Your task to perform on an android device: turn on location history Image 0: 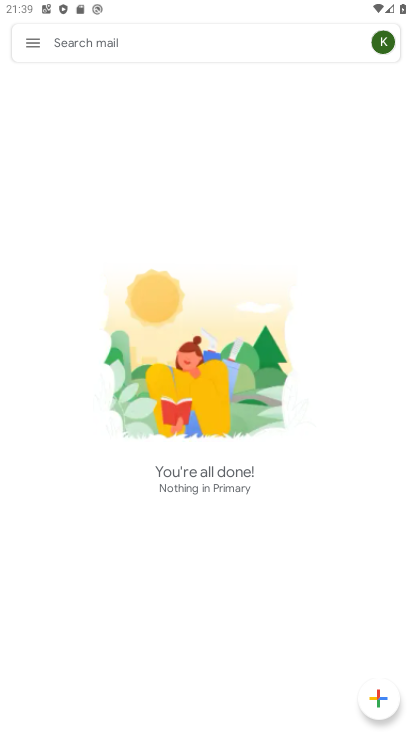
Step 0: press home button
Your task to perform on an android device: turn on location history Image 1: 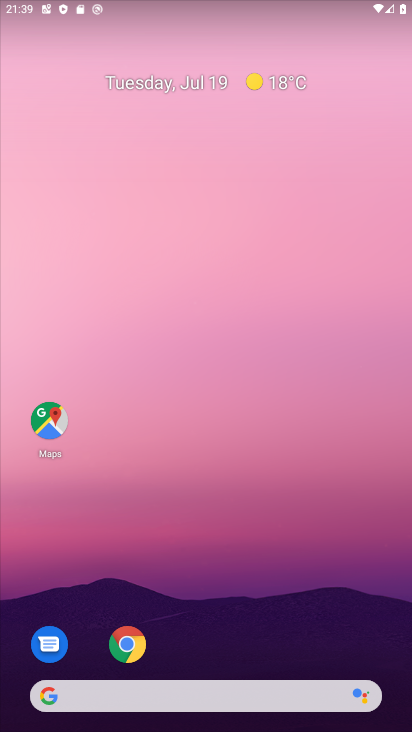
Step 1: drag from (220, 726) to (206, 253)
Your task to perform on an android device: turn on location history Image 2: 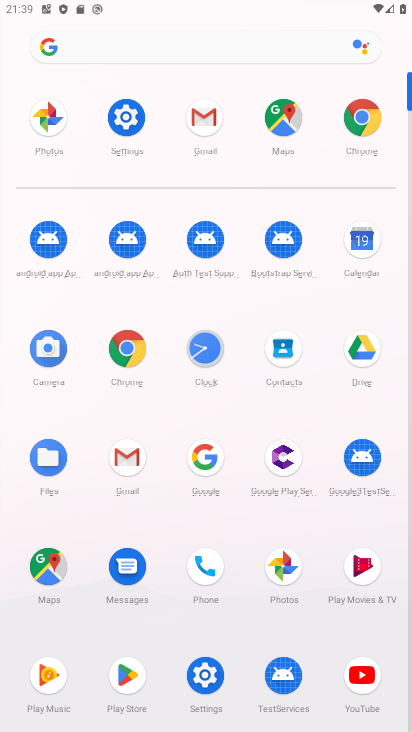
Step 2: click (130, 110)
Your task to perform on an android device: turn on location history Image 3: 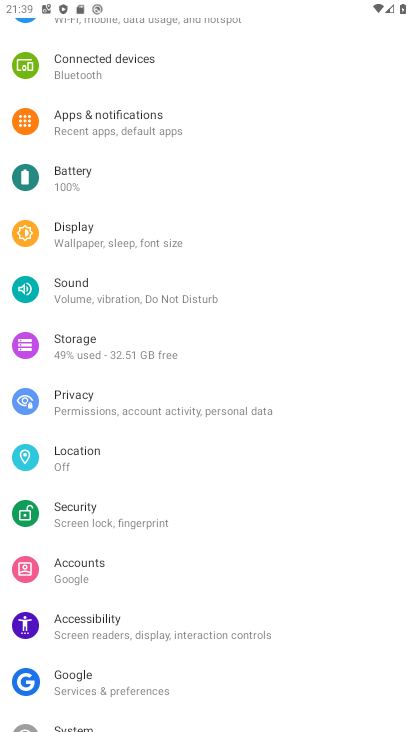
Step 3: click (67, 462)
Your task to perform on an android device: turn on location history Image 4: 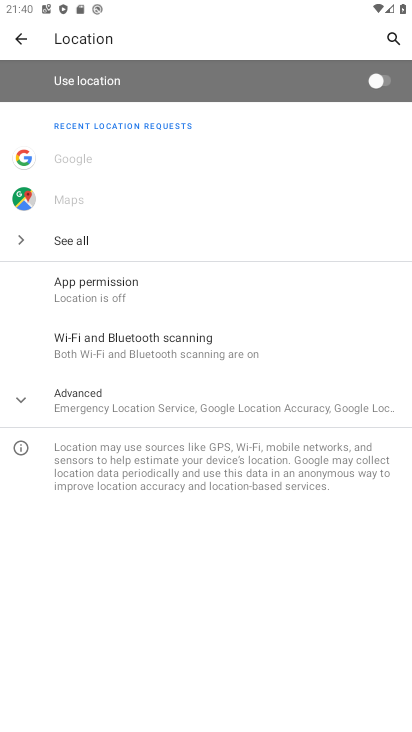
Step 4: click (96, 400)
Your task to perform on an android device: turn on location history Image 5: 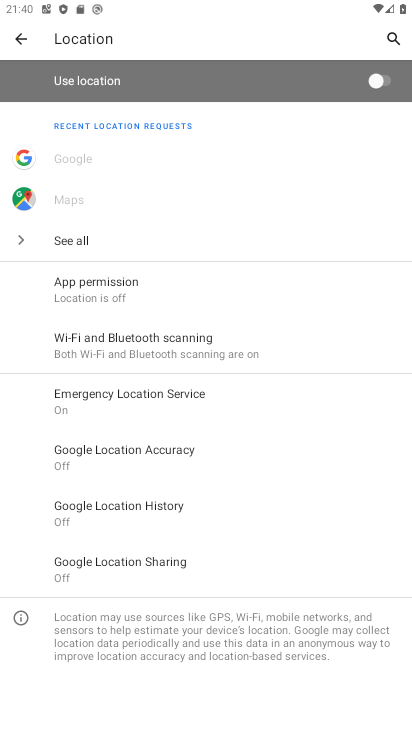
Step 5: click (109, 507)
Your task to perform on an android device: turn on location history Image 6: 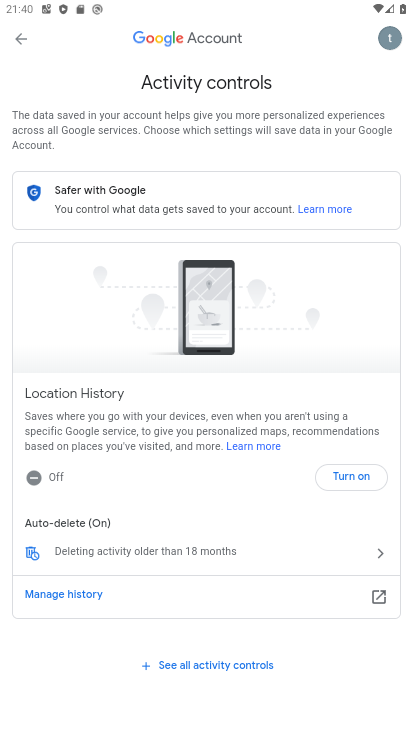
Step 6: click (341, 473)
Your task to perform on an android device: turn on location history Image 7: 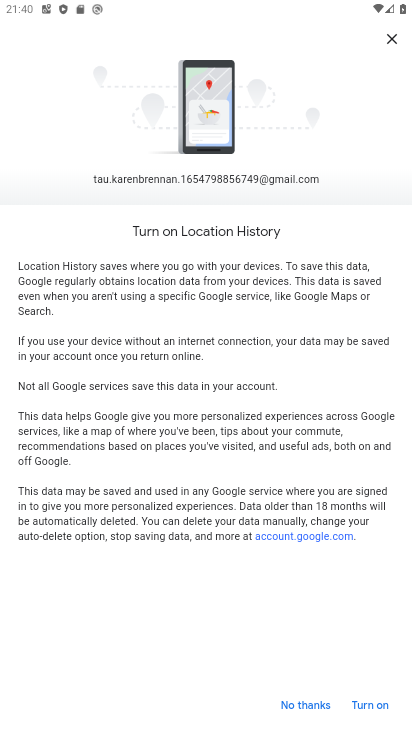
Step 7: click (383, 708)
Your task to perform on an android device: turn on location history Image 8: 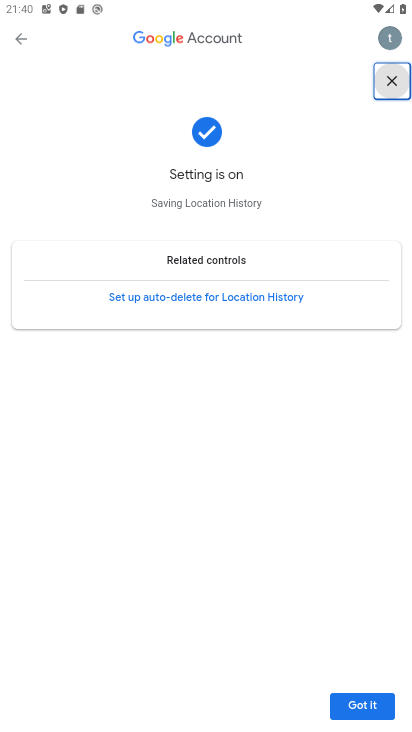
Step 8: click (352, 711)
Your task to perform on an android device: turn on location history Image 9: 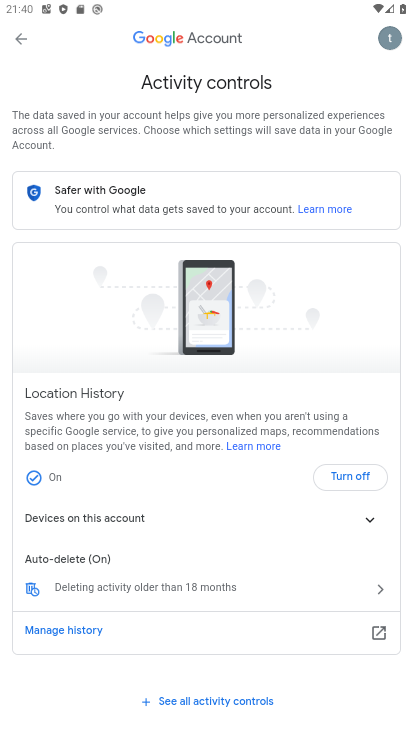
Step 9: task complete